Your task to perform on an android device: open chrome privacy settings Image 0: 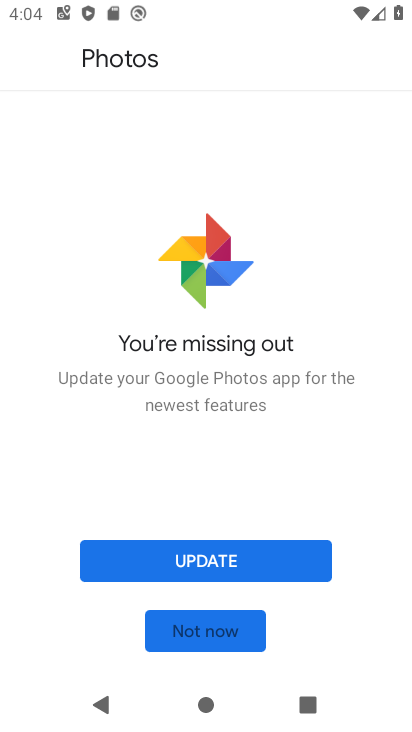
Step 0: press home button
Your task to perform on an android device: open chrome privacy settings Image 1: 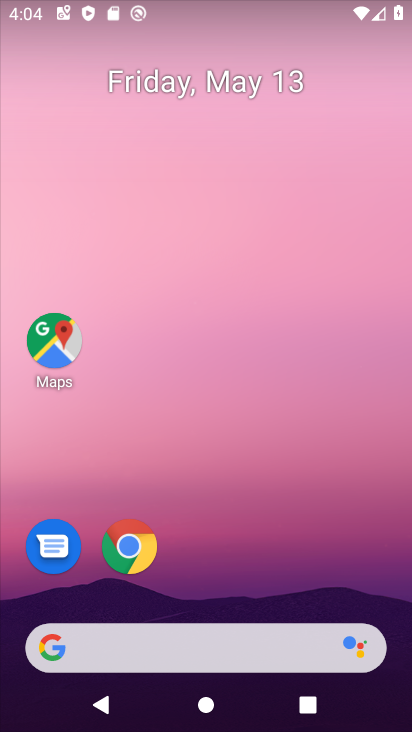
Step 1: click (128, 549)
Your task to perform on an android device: open chrome privacy settings Image 2: 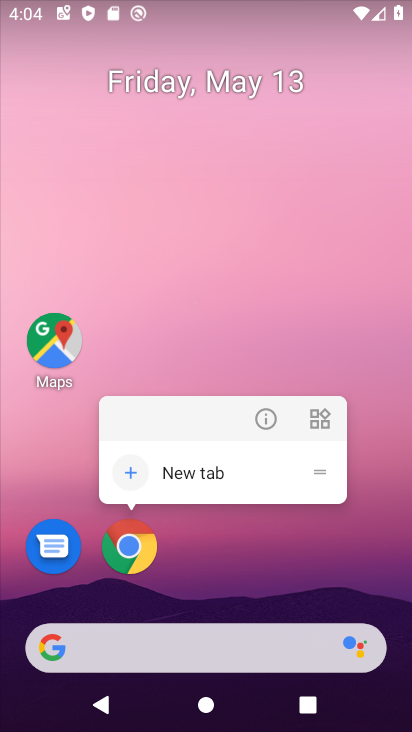
Step 2: click (139, 555)
Your task to perform on an android device: open chrome privacy settings Image 3: 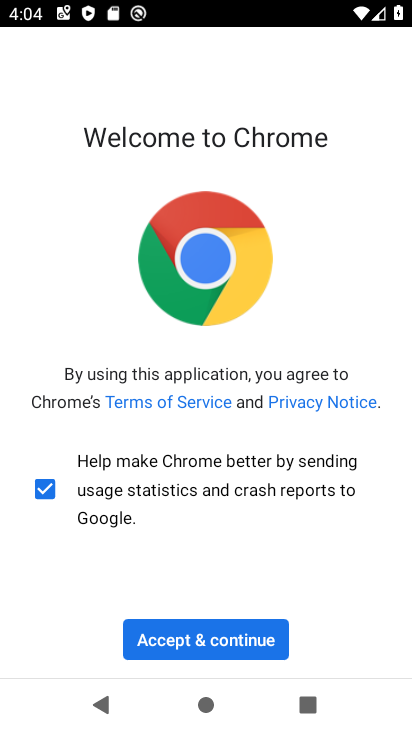
Step 3: click (191, 630)
Your task to perform on an android device: open chrome privacy settings Image 4: 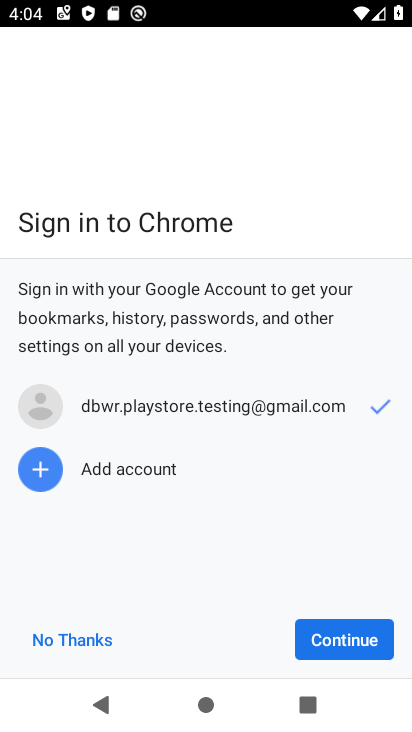
Step 4: click (360, 643)
Your task to perform on an android device: open chrome privacy settings Image 5: 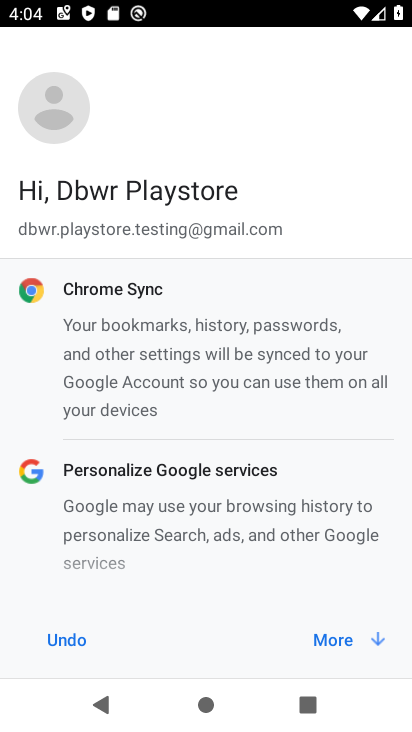
Step 5: click (335, 627)
Your task to perform on an android device: open chrome privacy settings Image 6: 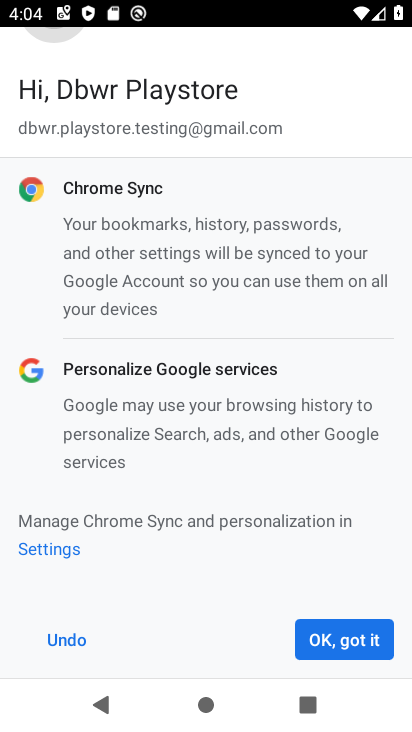
Step 6: click (335, 632)
Your task to perform on an android device: open chrome privacy settings Image 7: 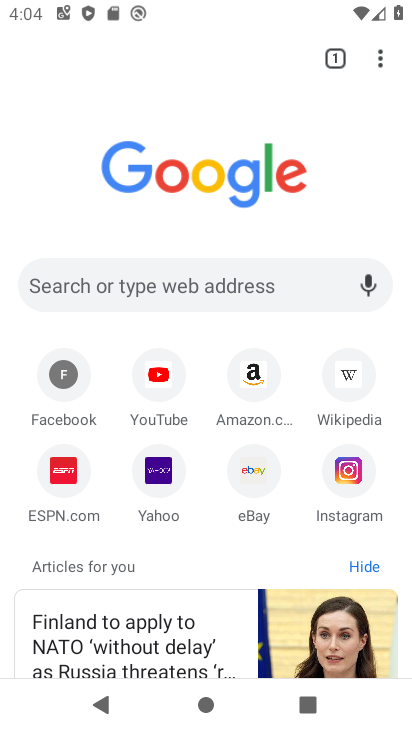
Step 7: click (389, 59)
Your task to perform on an android device: open chrome privacy settings Image 8: 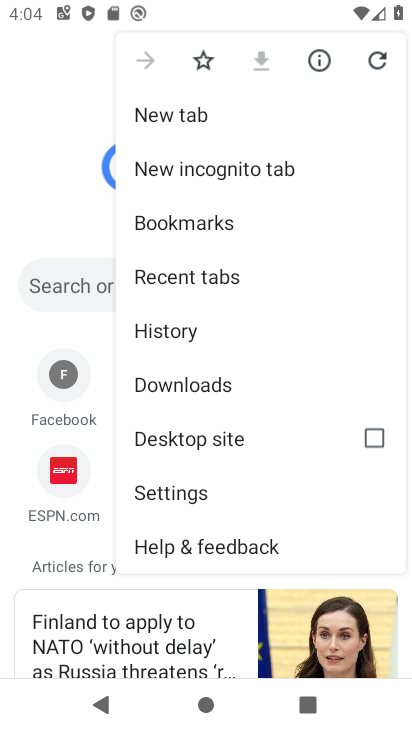
Step 8: click (193, 492)
Your task to perform on an android device: open chrome privacy settings Image 9: 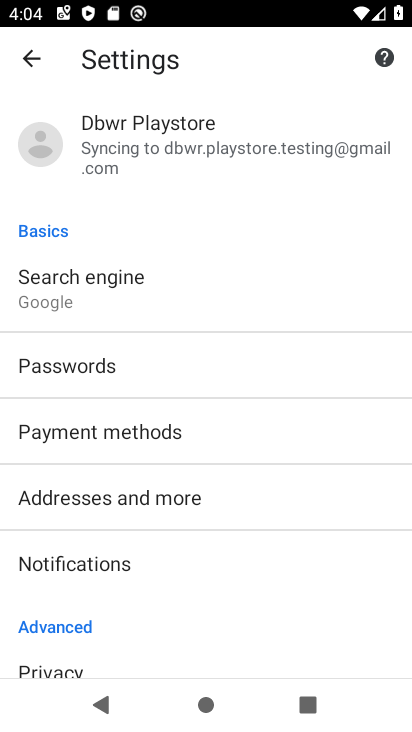
Step 9: drag from (85, 594) to (163, 308)
Your task to perform on an android device: open chrome privacy settings Image 10: 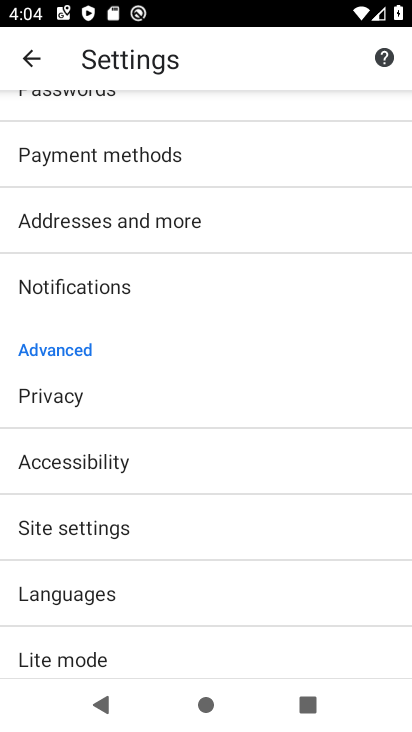
Step 10: click (67, 394)
Your task to perform on an android device: open chrome privacy settings Image 11: 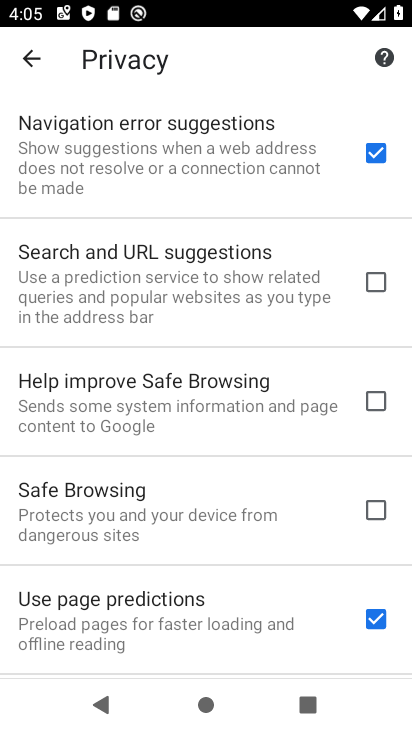
Step 11: task complete